Your task to perform on an android device: Open Wikipedia Image 0: 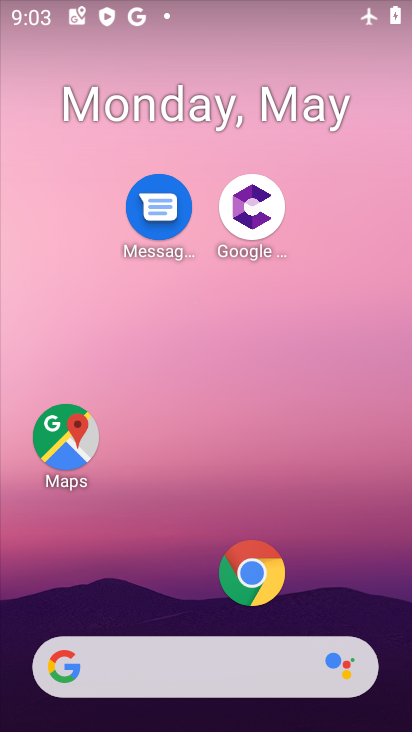
Step 0: drag from (175, 632) to (237, 174)
Your task to perform on an android device: Open Wikipedia Image 1: 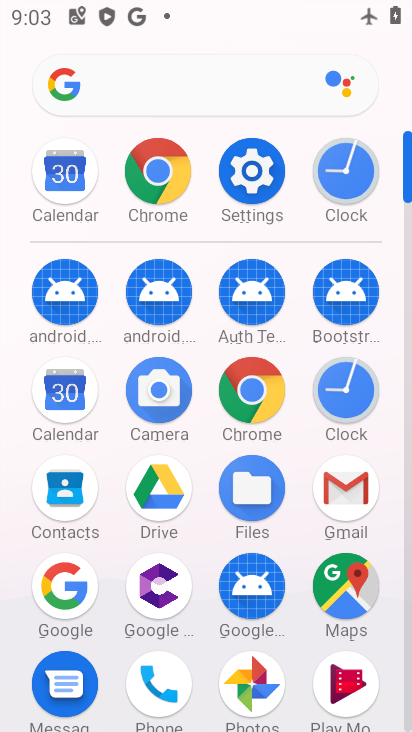
Step 1: click (175, 193)
Your task to perform on an android device: Open Wikipedia Image 2: 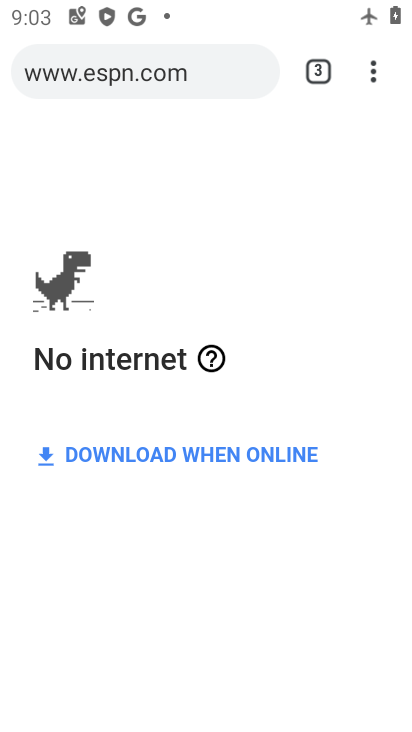
Step 2: click (189, 70)
Your task to perform on an android device: Open Wikipedia Image 3: 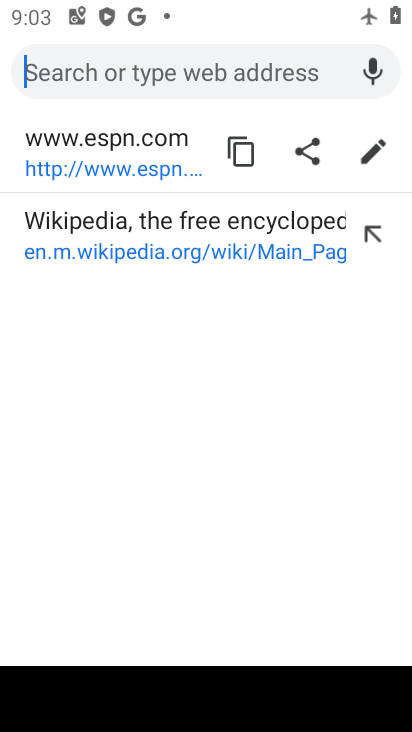
Step 3: click (205, 254)
Your task to perform on an android device: Open Wikipedia Image 4: 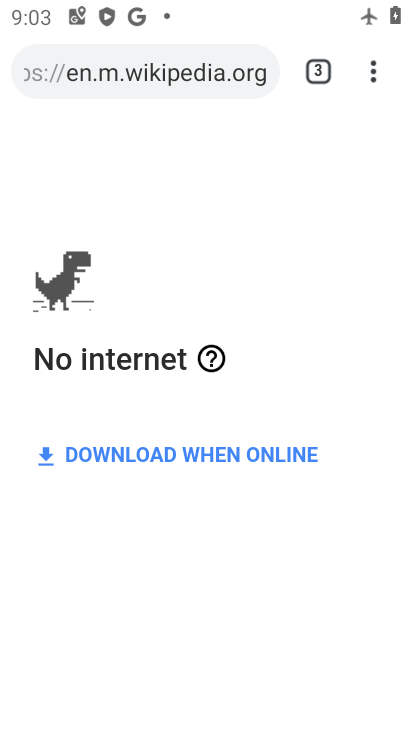
Step 4: task complete